Your task to perform on an android device: When is my next appointment? Image 0: 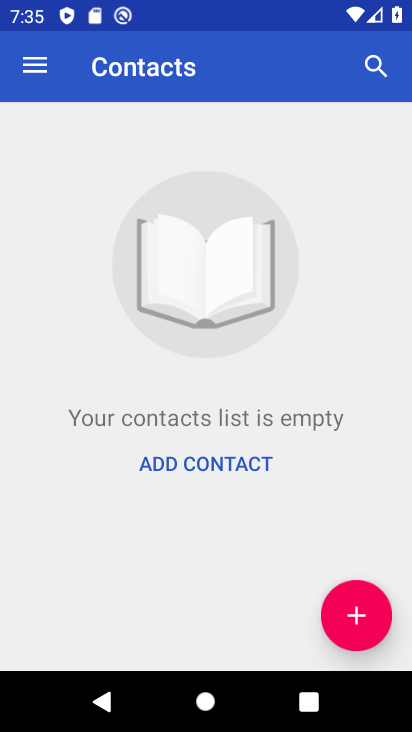
Step 0: press home button
Your task to perform on an android device: When is my next appointment? Image 1: 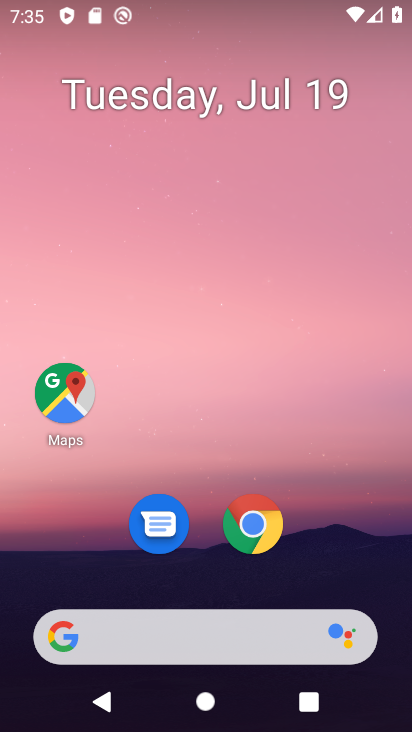
Step 1: drag from (307, 561) to (352, 41)
Your task to perform on an android device: When is my next appointment? Image 2: 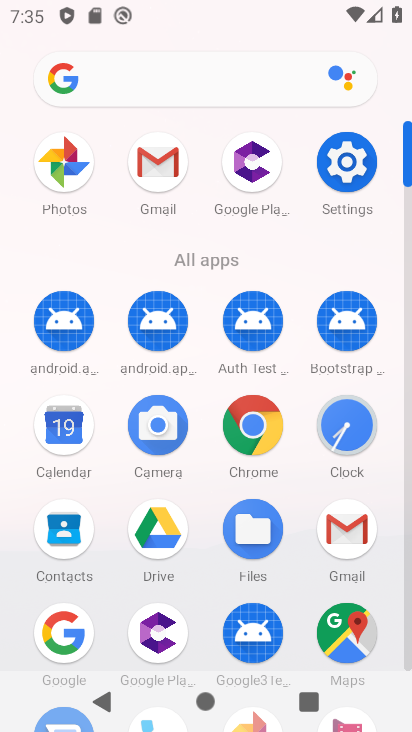
Step 2: click (60, 420)
Your task to perform on an android device: When is my next appointment? Image 3: 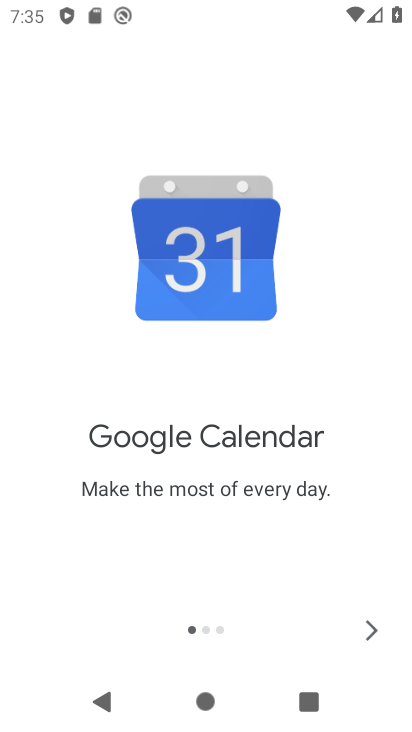
Step 3: click (372, 623)
Your task to perform on an android device: When is my next appointment? Image 4: 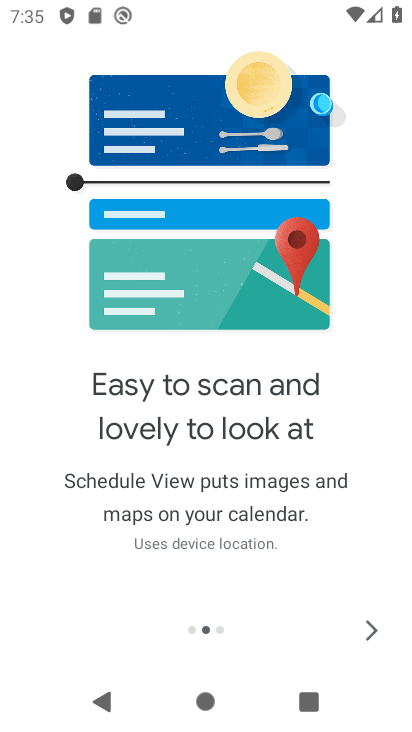
Step 4: click (369, 628)
Your task to perform on an android device: When is my next appointment? Image 5: 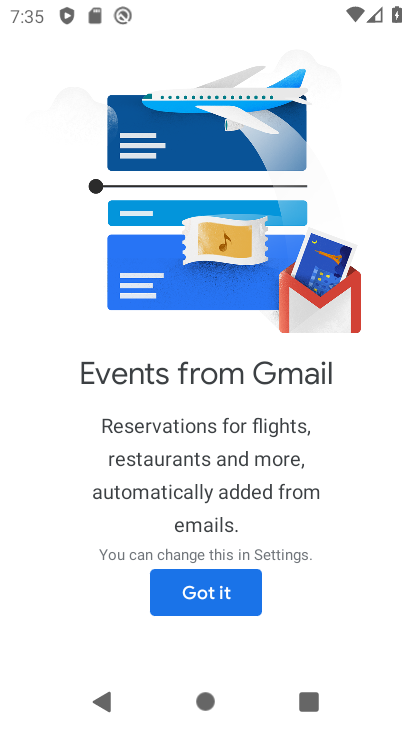
Step 5: click (228, 588)
Your task to perform on an android device: When is my next appointment? Image 6: 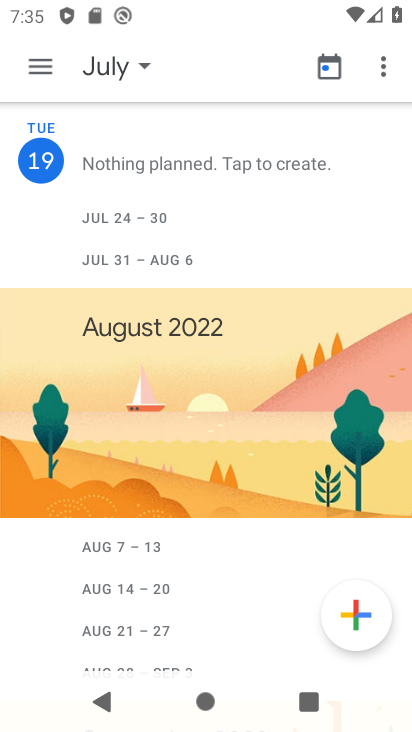
Step 6: task complete